Your task to perform on an android device: delete a single message in the gmail app Image 0: 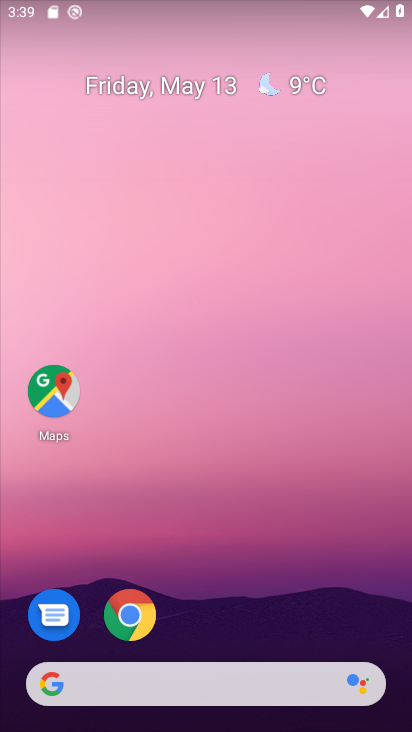
Step 0: drag from (213, 606) to (292, 72)
Your task to perform on an android device: delete a single message in the gmail app Image 1: 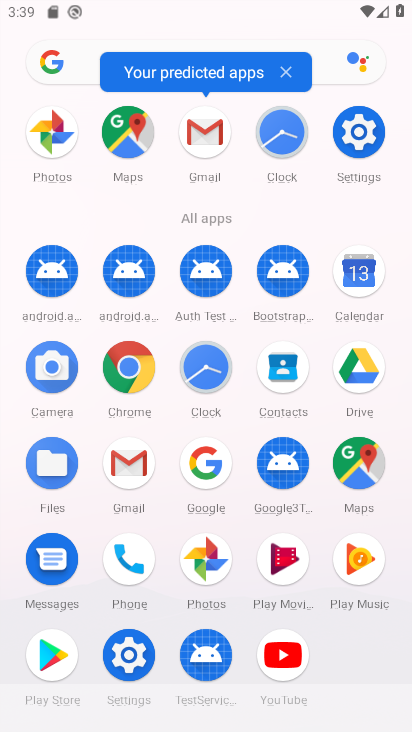
Step 1: click (198, 137)
Your task to perform on an android device: delete a single message in the gmail app Image 2: 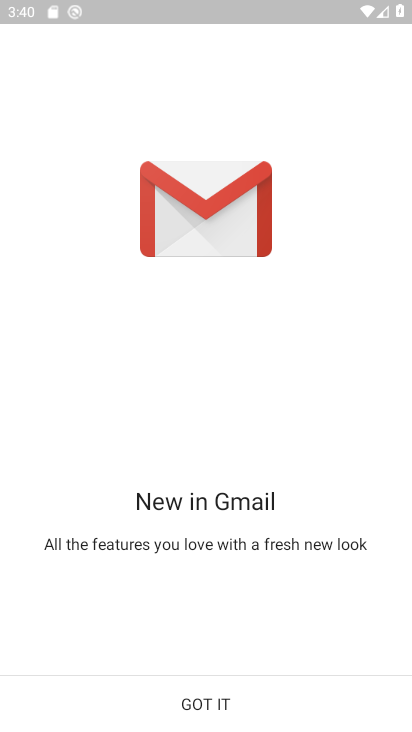
Step 2: click (212, 724)
Your task to perform on an android device: delete a single message in the gmail app Image 3: 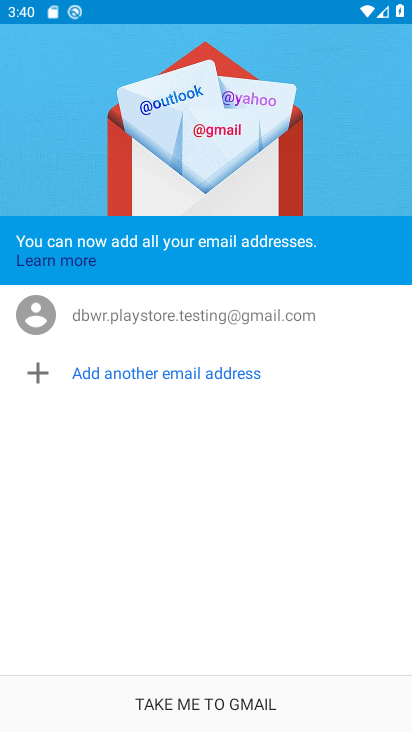
Step 3: click (208, 705)
Your task to perform on an android device: delete a single message in the gmail app Image 4: 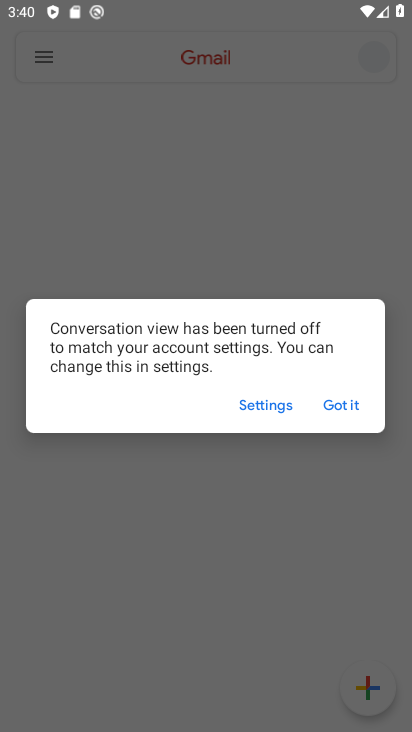
Step 4: click (333, 416)
Your task to perform on an android device: delete a single message in the gmail app Image 5: 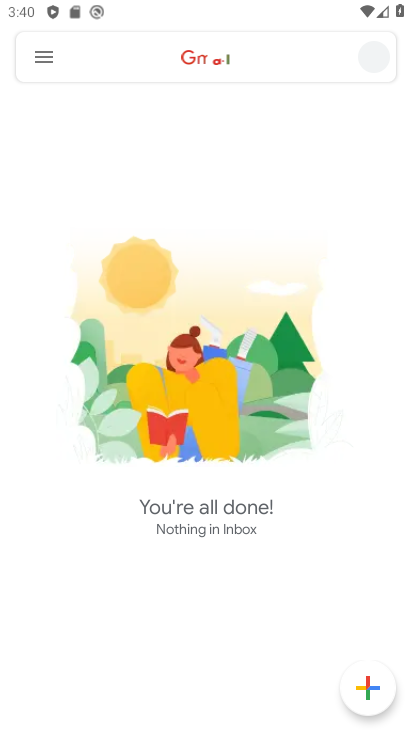
Step 5: click (43, 56)
Your task to perform on an android device: delete a single message in the gmail app Image 6: 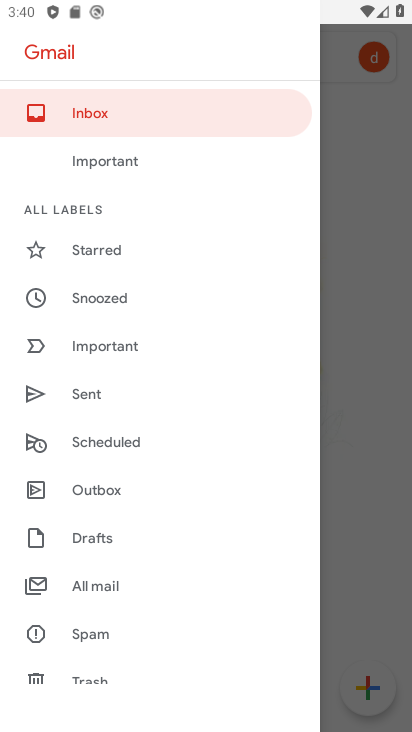
Step 6: click (98, 598)
Your task to perform on an android device: delete a single message in the gmail app Image 7: 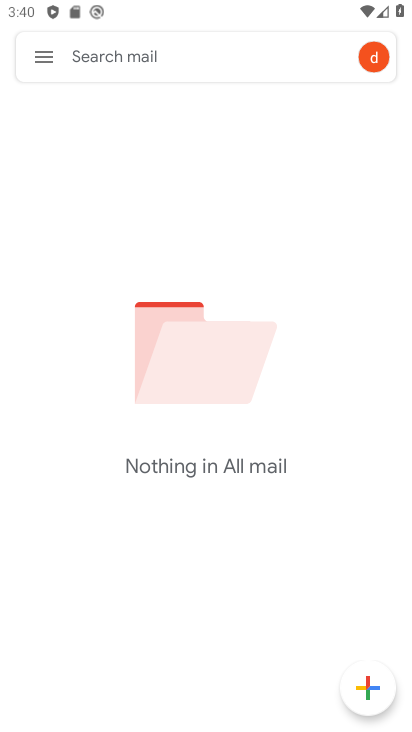
Step 7: task complete